Your task to perform on an android device: check the backup settings in the google photos Image 0: 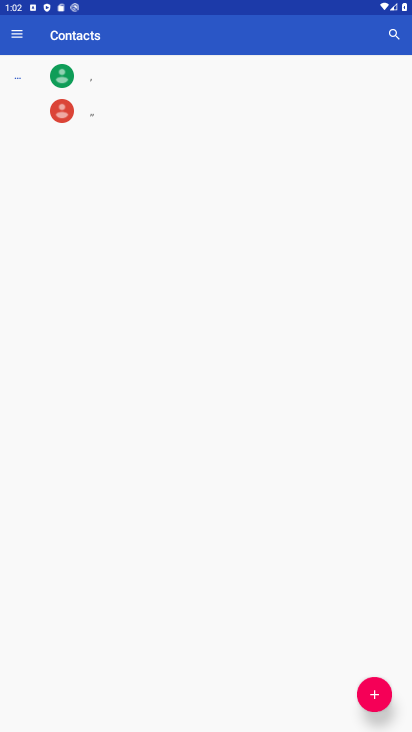
Step 0: press home button
Your task to perform on an android device: check the backup settings in the google photos Image 1: 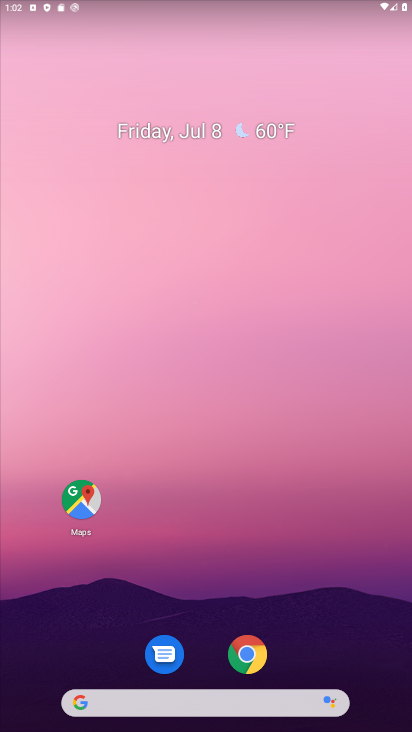
Step 1: drag from (210, 661) to (246, 131)
Your task to perform on an android device: check the backup settings in the google photos Image 2: 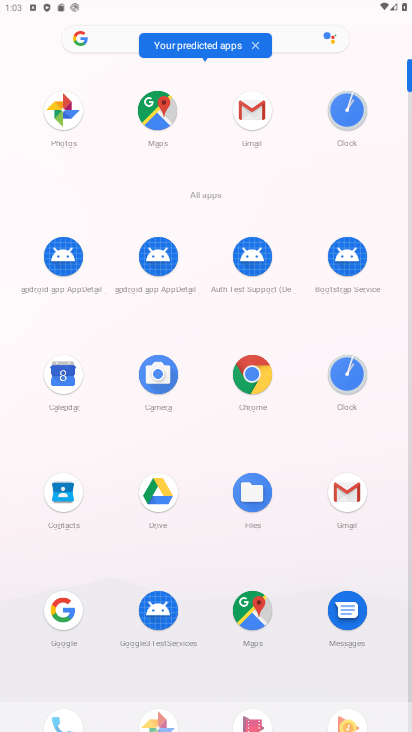
Step 2: click (66, 106)
Your task to perform on an android device: check the backup settings in the google photos Image 3: 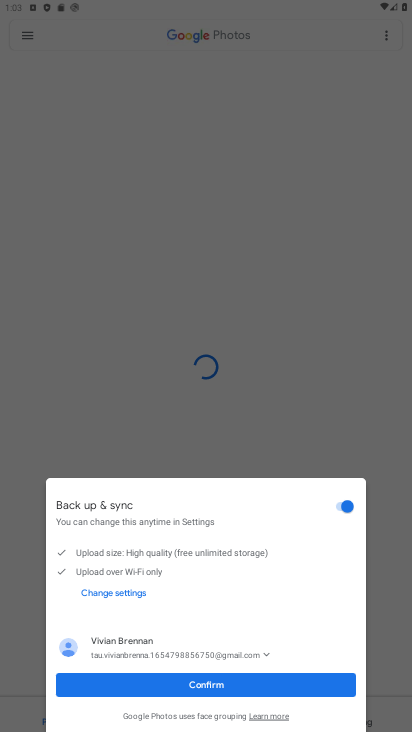
Step 3: click (126, 589)
Your task to perform on an android device: check the backup settings in the google photos Image 4: 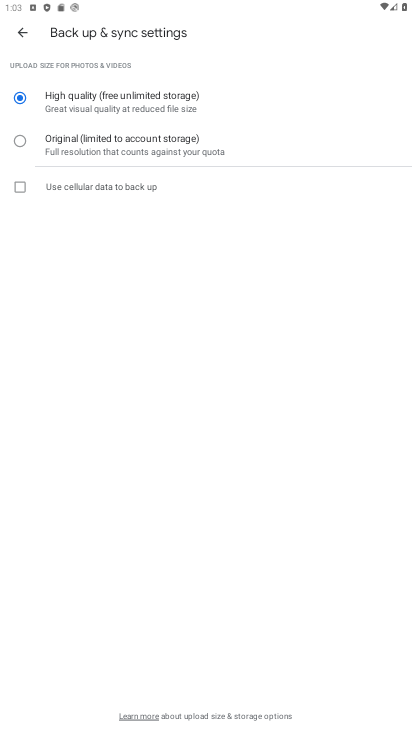
Step 4: task complete